Your task to perform on an android device: make emails show in primary in the gmail app Image 0: 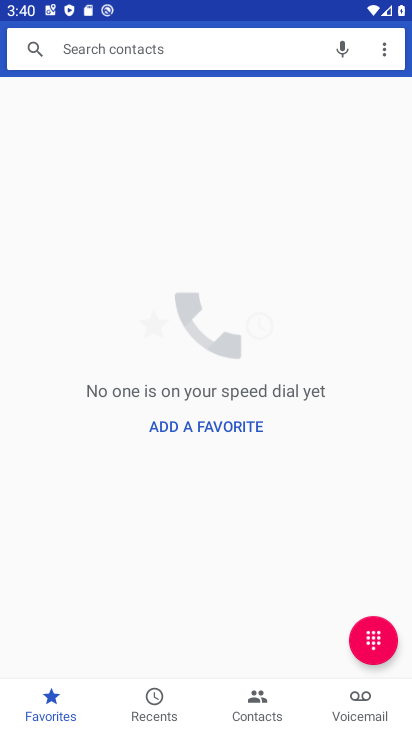
Step 0: press back button
Your task to perform on an android device: make emails show in primary in the gmail app Image 1: 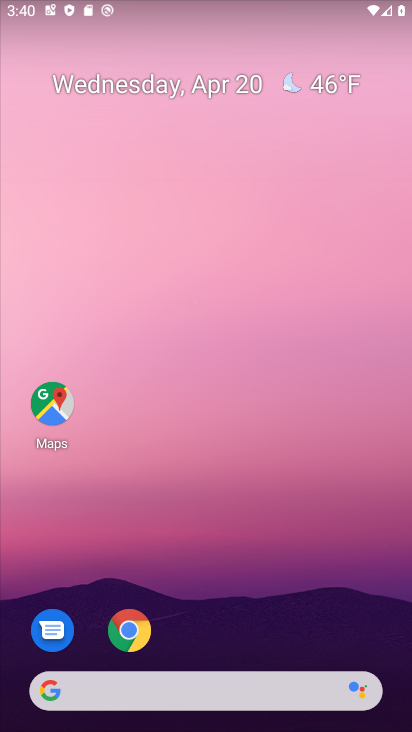
Step 1: click (221, 255)
Your task to perform on an android device: make emails show in primary in the gmail app Image 2: 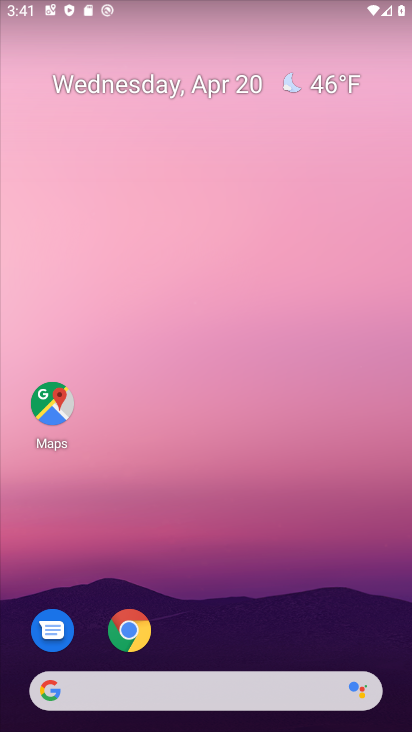
Step 2: drag from (193, 671) to (212, 367)
Your task to perform on an android device: make emails show in primary in the gmail app Image 3: 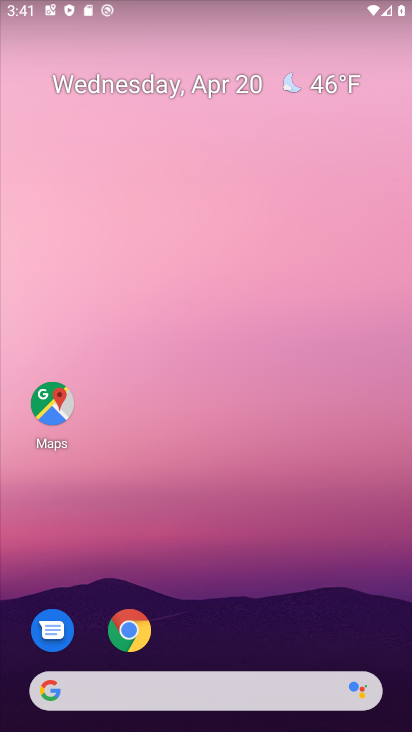
Step 3: drag from (188, 680) to (261, 250)
Your task to perform on an android device: make emails show in primary in the gmail app Image 4: 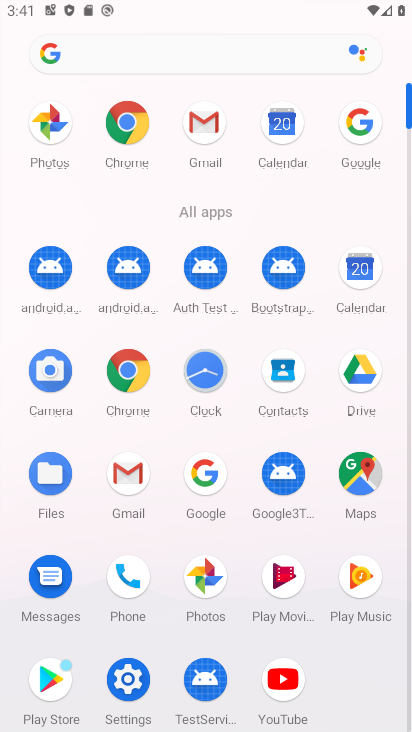
Step 4: click (212, 121)
Your task to perform on an android device: make emails show in primary in the gmail app Image 5: 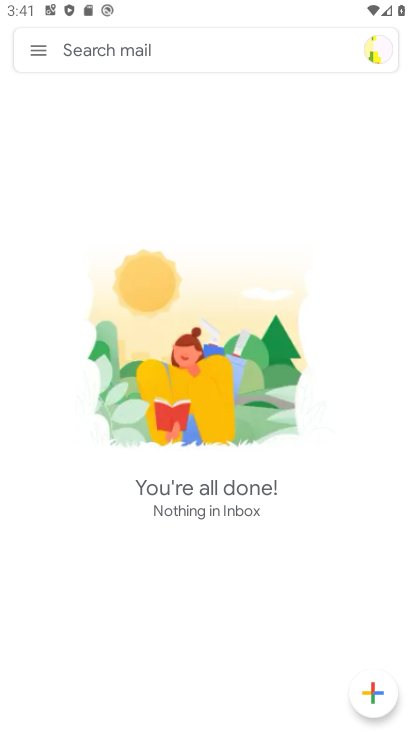
Step 5: click (41, 49)
Your task to perform on an android device: make emails show in primary in the gmail app Image 6: 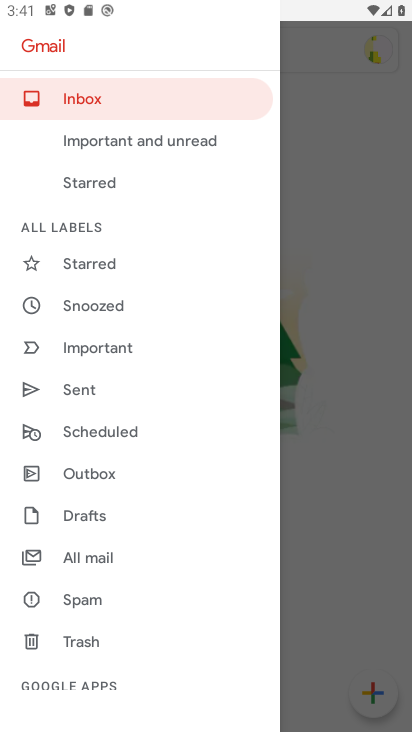
Step 6: drag from (91, 670) to (173, 275)
Your task to perform on an android device: make emails show in primary in the gmail app Image 7: 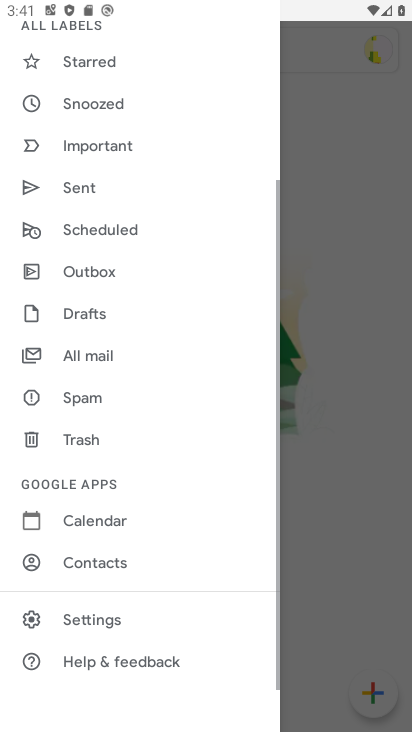
Step 7: click (115, 619)
Your task to perform on an android device: make emails show in primary in the gmail app Image 8: 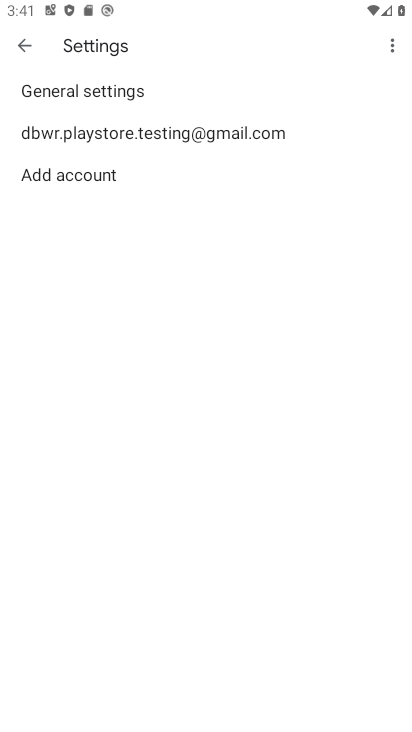
Step 8: click (147, 133)
Your task to perform on an android device: make emails show in primary in the gmail app Image 9: 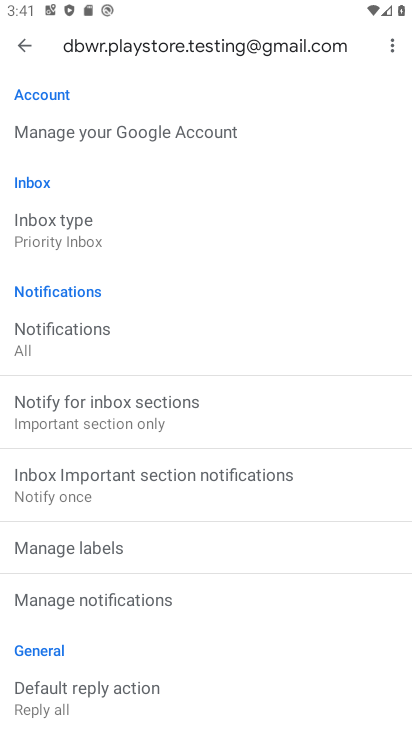
Step 9: click (65, 237)
Your task to perform on an android device: make emails show in primary in the gmail app Image 10: 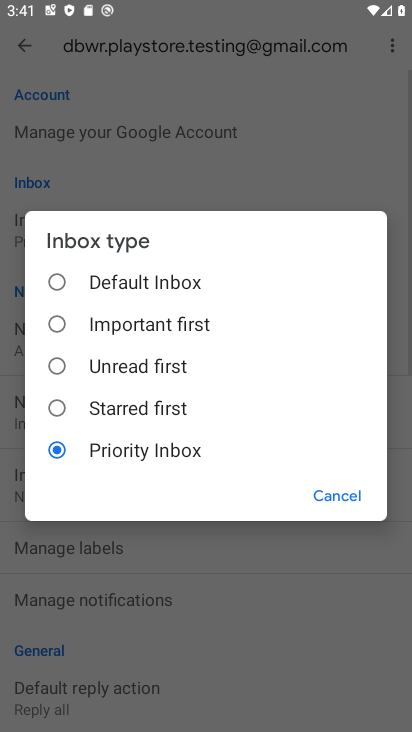
Step 10: click (88, 284)
Your task to perform on an android device: make emails show in primary in the gmail app Image 11: 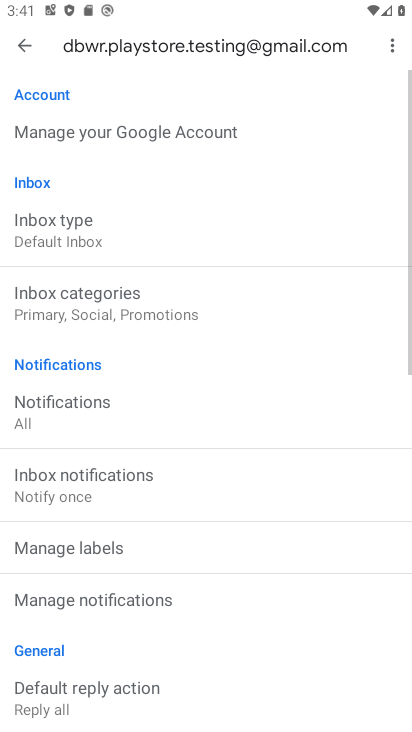
Step 11: click (86, 306)
Your task to perform on an android device: make emails show in primary in the gmail app Image 12: 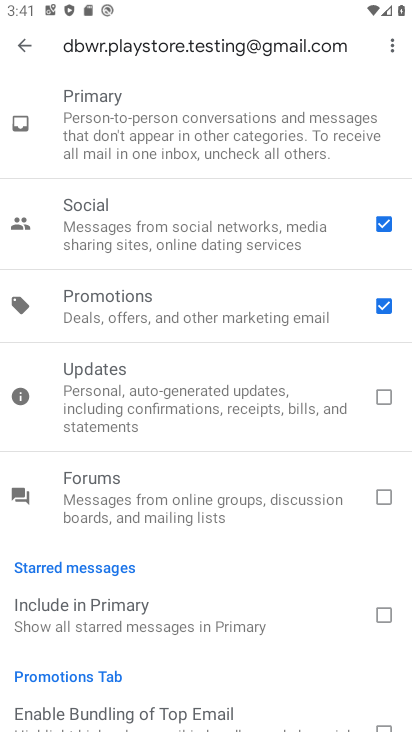
Step 12: click (385, 309)
Your task to perform on an android device: make emails show in primary in the gmail app Image 13: 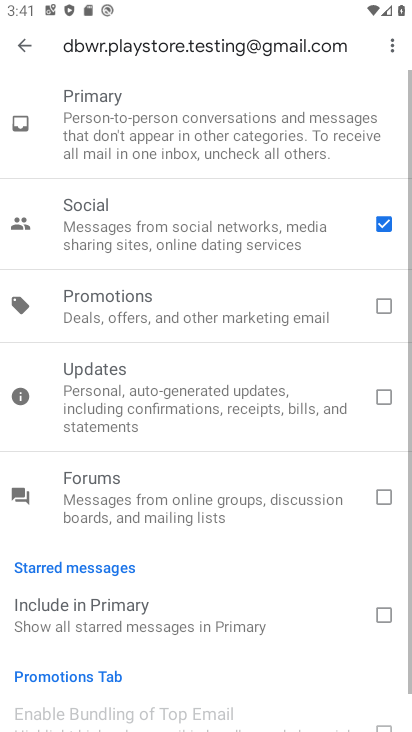
Step 13: click (383, 222)
Your task to perform on an android device: make emails show in primary in the gmail app Image 14: 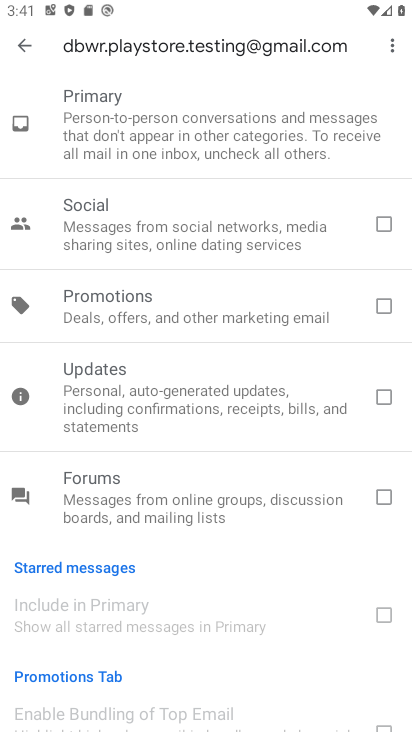
Step 14: click (24, 45)
Your task to perform on an android device: make emails show in primary in the gmail app Image 15: 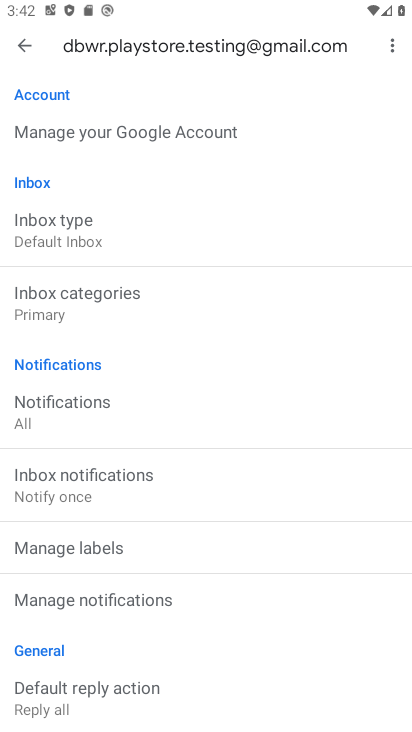
Step 15: click (20, 51)
Your task to perform on an android device: make emails show in primary in the gmail app Image 16: 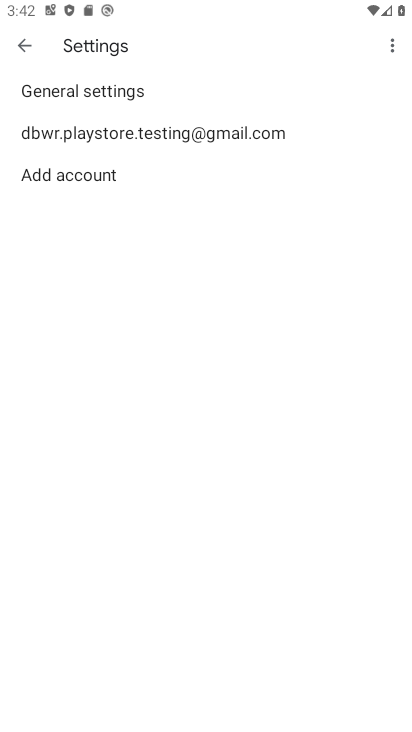
Step 16: click (25, 45)
Your task to perform on an android device: make emails show in primary in the gmail app Image 17: 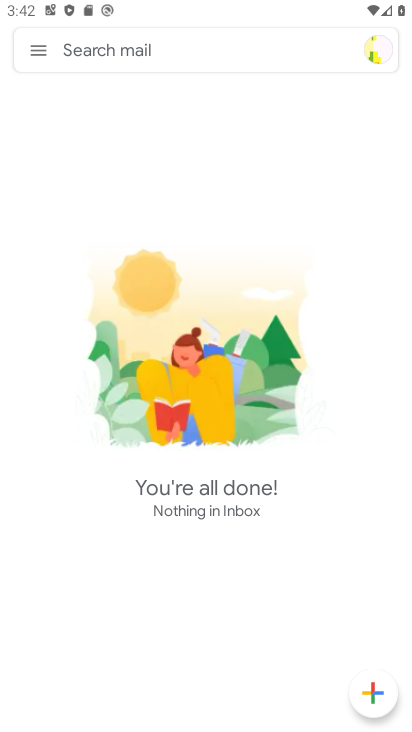
Step 17: task complete